Your task to perform on an android device: Open Google Chrome and click the shortcut for Amazon.com Image 0: 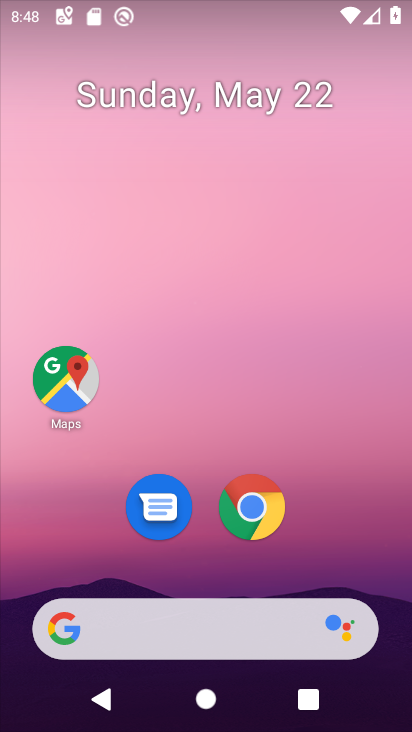
Step 0: click (252, 497)
Your task to perform on an android device: Open Google Chrome and click the shortcut for Amazon.com Image 1: 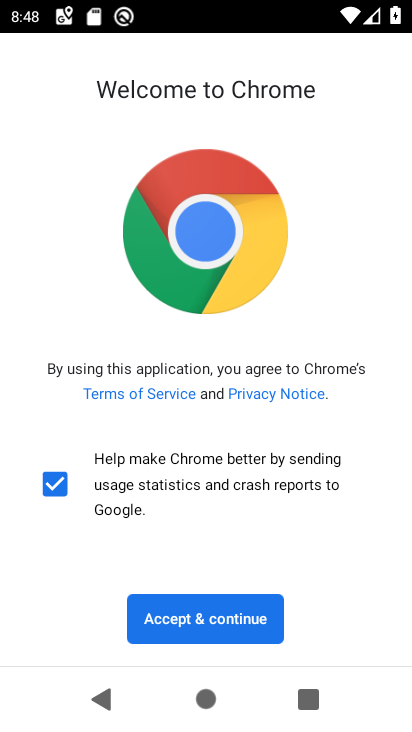
Step 1: click (181, 619)
Your task to perform on an android device: Open Google Chrome and click the shortcut for Amazon.com Image 2: 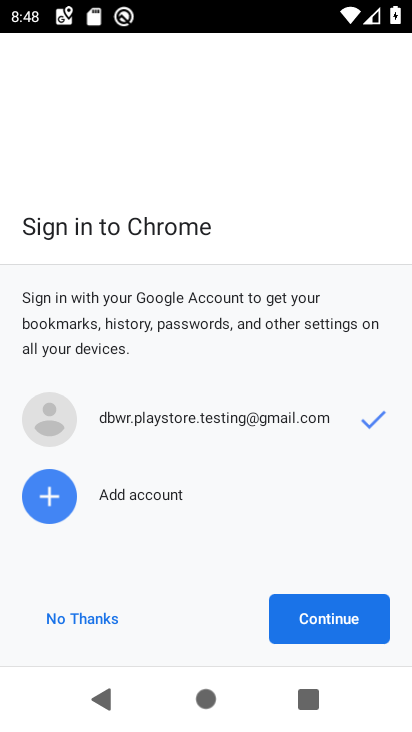
Step 2: click (278, 625)
Your task to perform on an android device: Open Google Chrome and click the shortcut for Amazon.com Image 3: 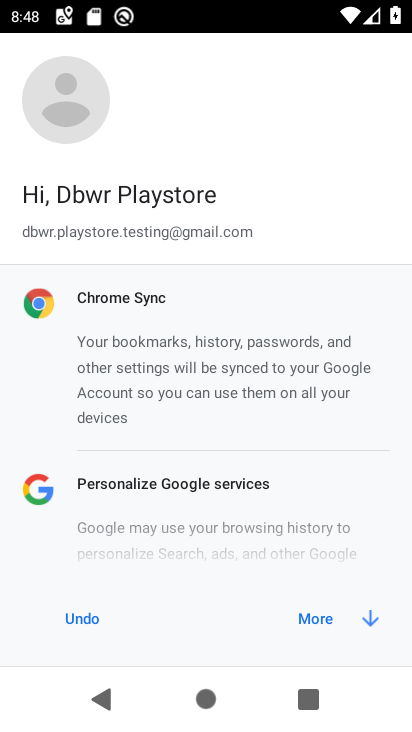
Step 3: click (348, 625)
Your task to perform on an android device: Open Google Chrome and click the shortcut for Amazon.com Image 4: 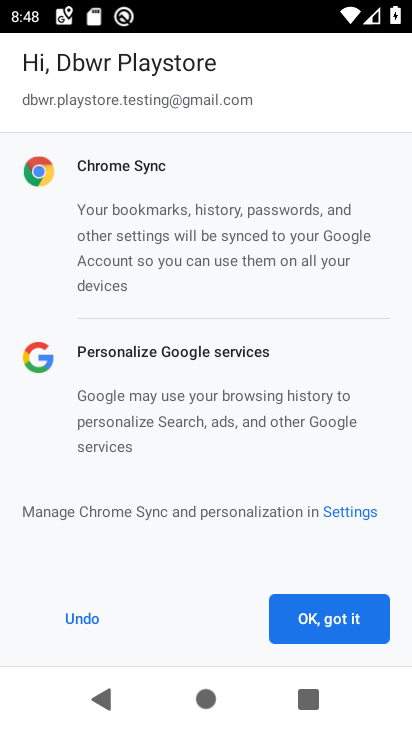
Step 4: click (348, 625)
Your task to perform on an android device: Open Google Chrome and click the shortcut for Amazon.com Image 5: 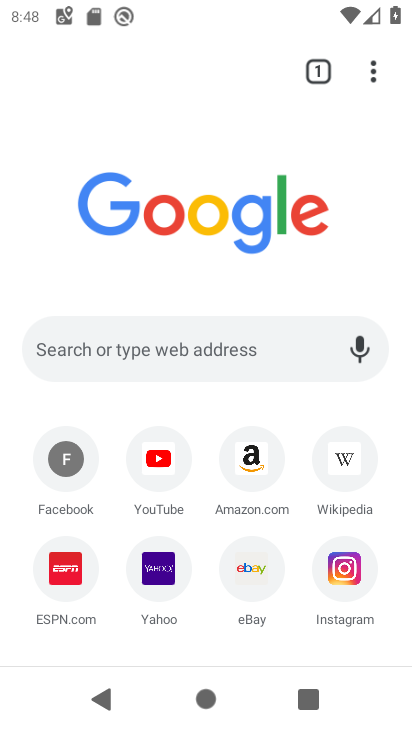
Step 5: click (230, 476)
Your task to perform on an android device: Open Google Chrome and click the shortcut for Amazon.com Image 6: 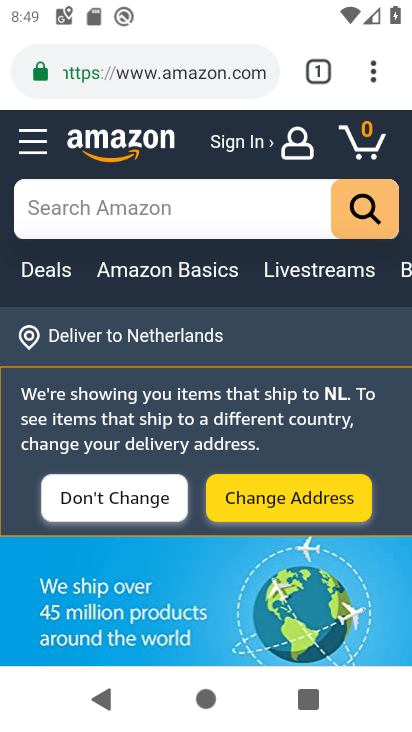
Step 6: task complete